Your task to perform on an android device: set an alarm Image 0: 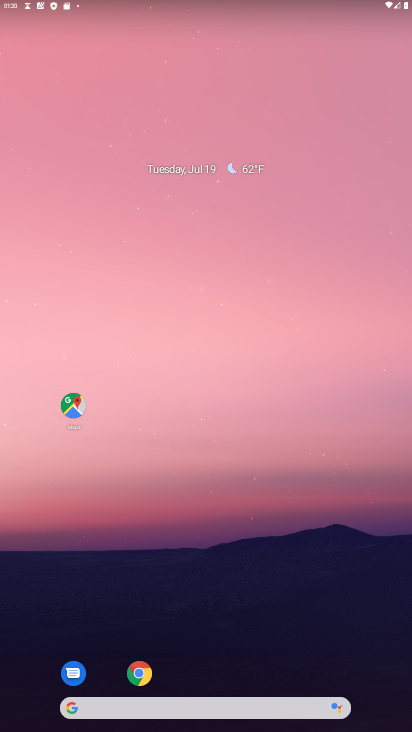
Step 0: drag from (276, 698) to (260, 75)
Your task to perform on an android device: set an alarm Image 1: 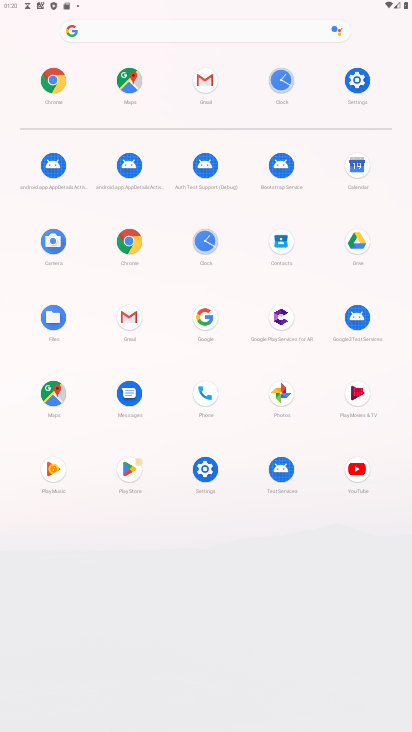
Step 1: click (197, 236)
Your task to perform on an android device: set an alarm Image 2: 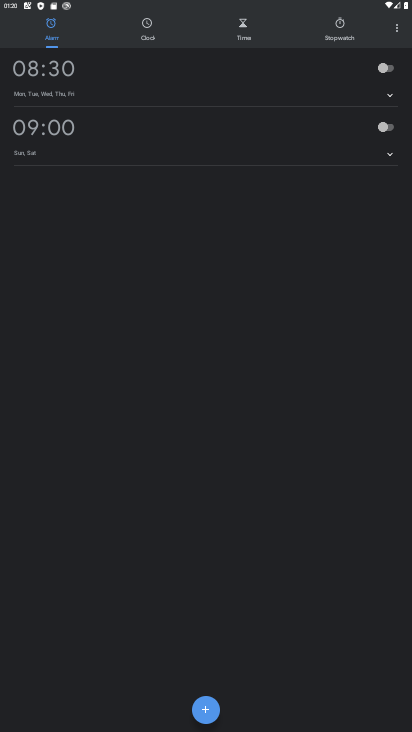
Step 2: click (392, 70)
Your task to perform on an android device: set an alarm Image 3: 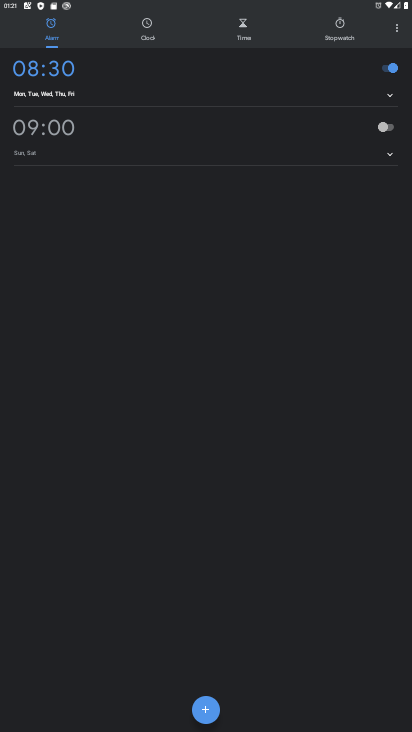
Step 3: task complete